Your task to perform on an android device: Search for Mexican restaurants on Maps Image 0: 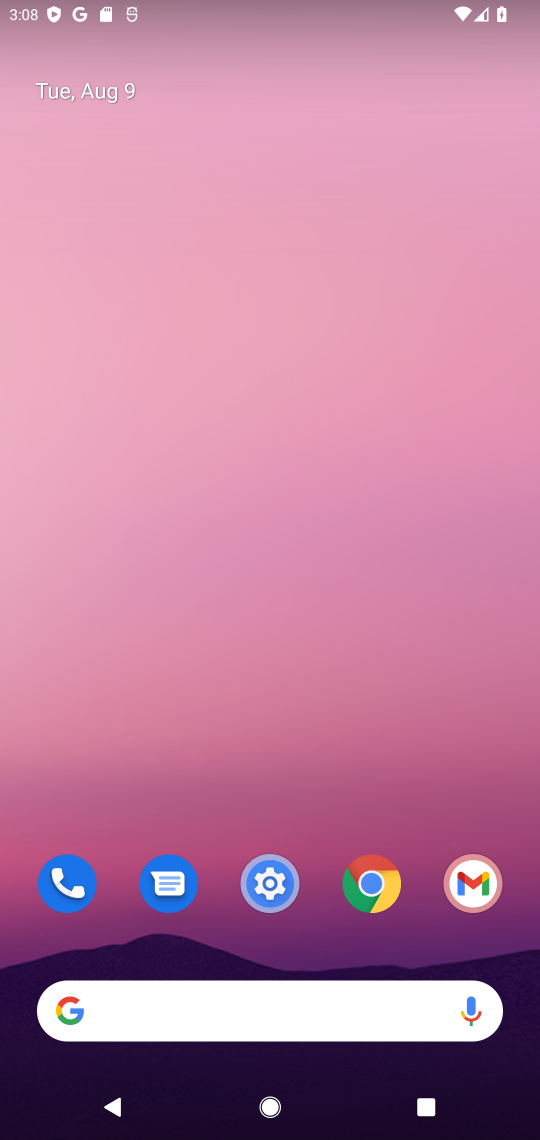
Step 0: drag from (429, 961) to (406, 185)
Your task to perform on an android device: Search for Mexican restaurants on Maps Image 1: 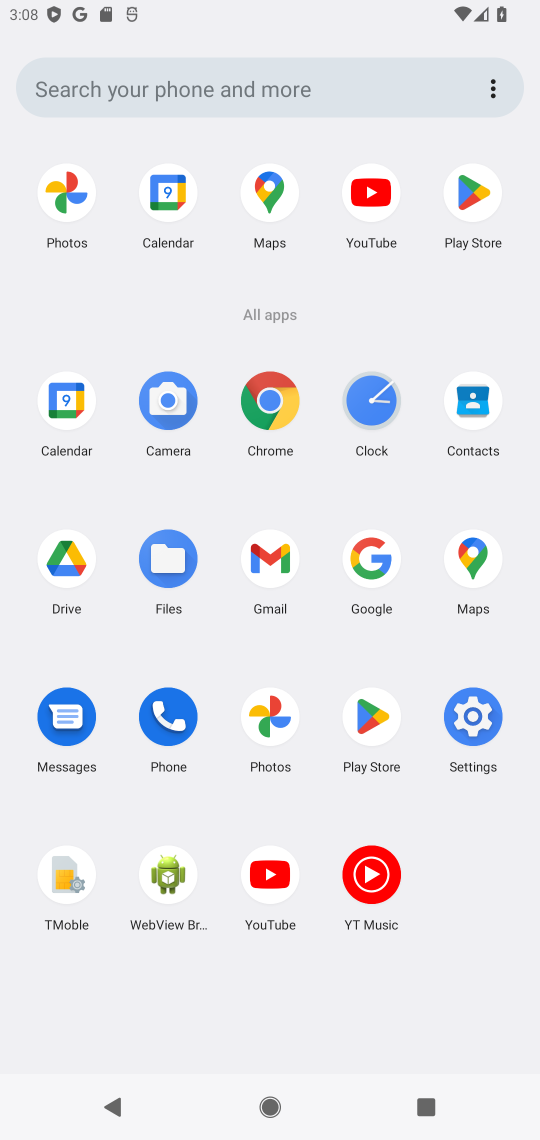
Step 1: click (465, 554)
Your task to perform on an android device: Search for Mexican restaurants on Maps Image 2: 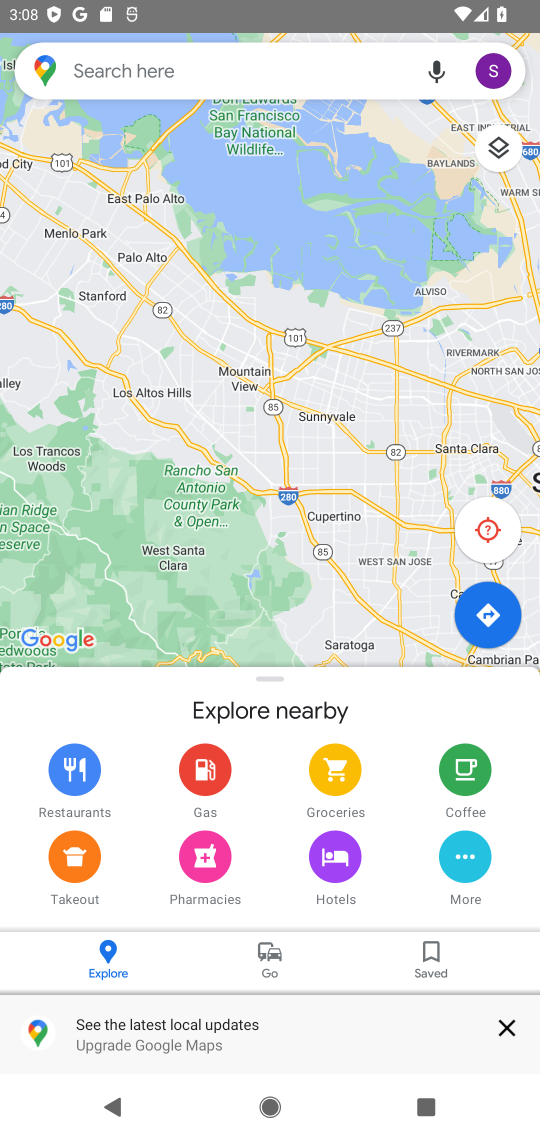
Step 2: click (263, 77)
Your task to perform on an android device: Search for Mexican restaurants on Maps Image 3: 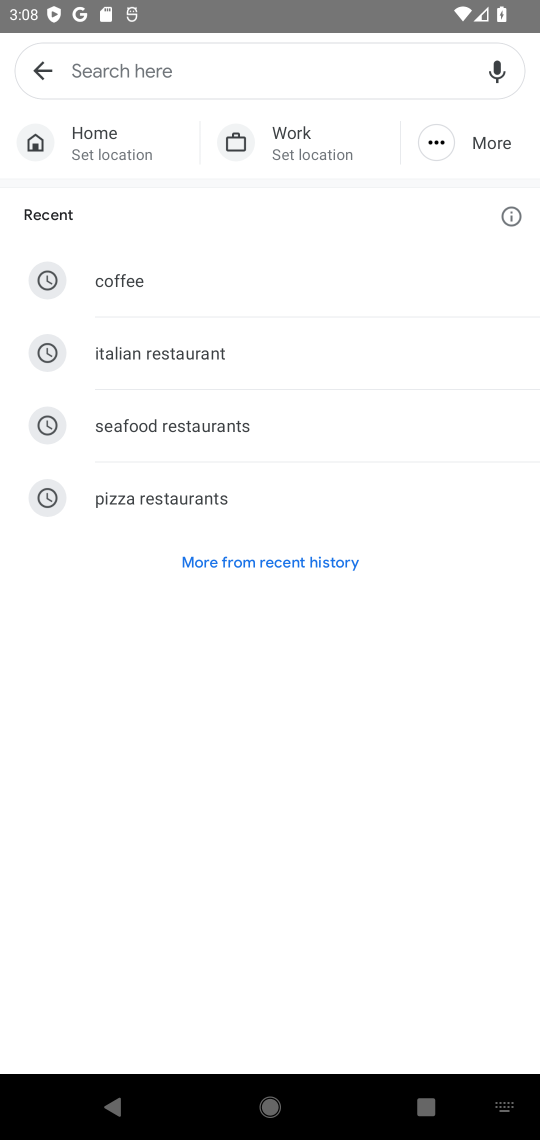
Step 3: type "mexican restaurants"
Your task to perform on an android device: Search for Mexican restaurants on Maps Image 4: 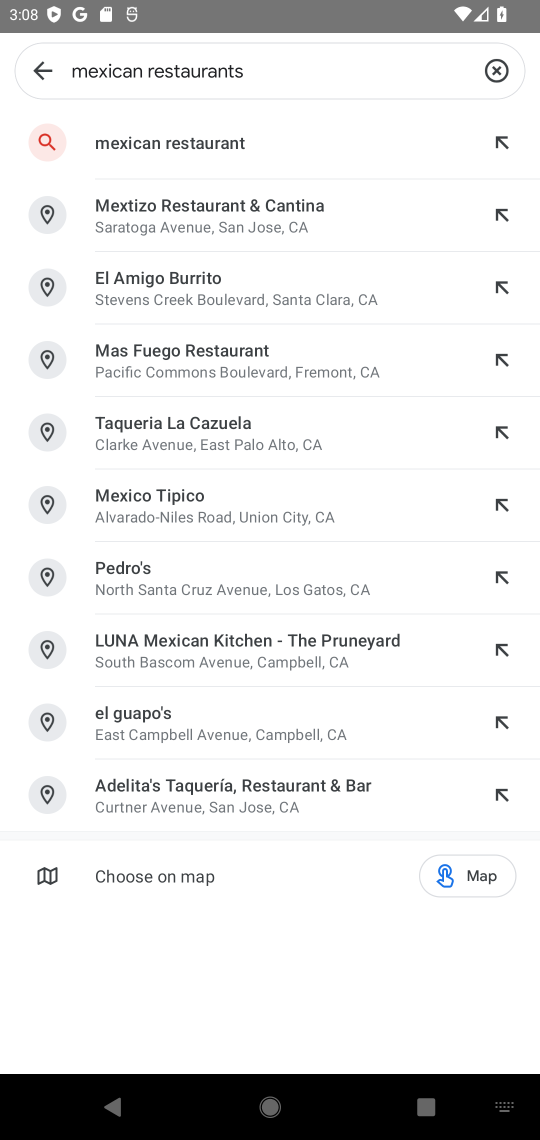
Step 4: click (192, 136)
Your task to perform on an android device: Search for Mexican restaurants on Maps Image 5: 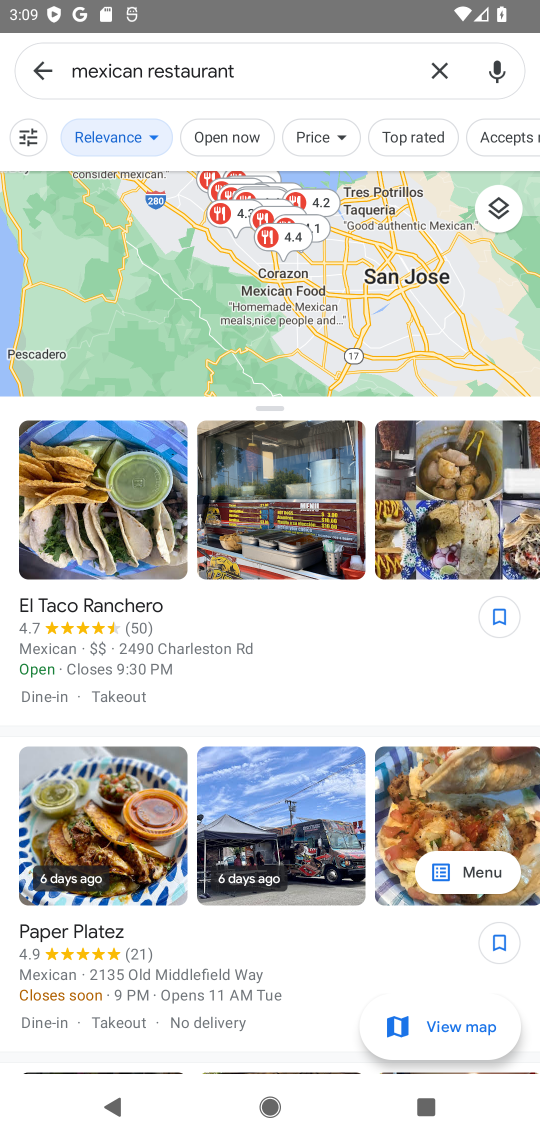
Step 5: task complete